Your task to perform on an android device: Open Chrome and go to settings Image 0: 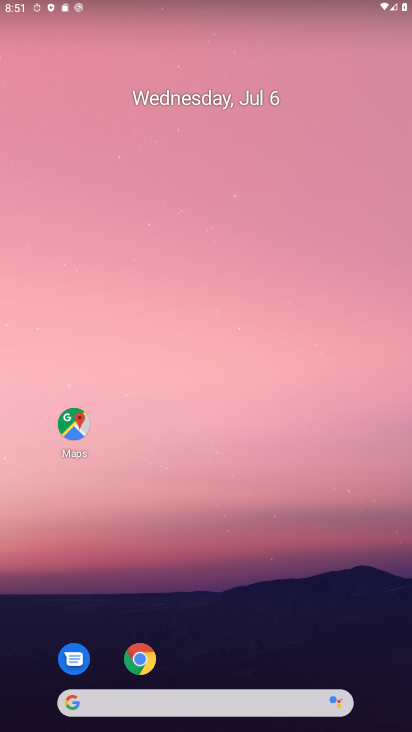
Step 0: drag from (349, 648) to (335, 151)
Your task to perform on an android device: Open Chrome and go to settings Image 1: 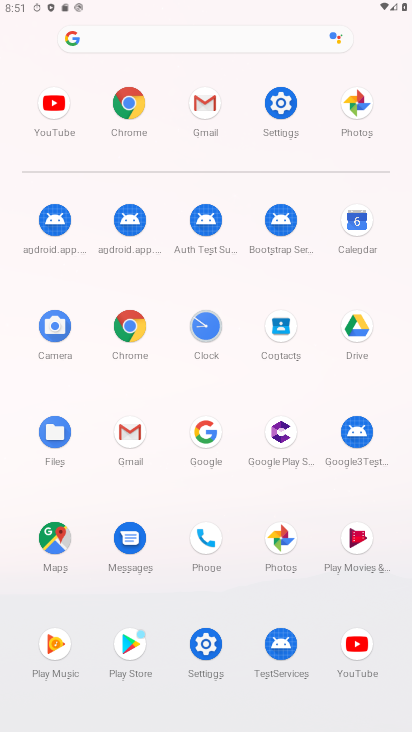
Step 1: click (136, 327)
Your task to perform on an android device: Open Chrome and go to settings Image 2: 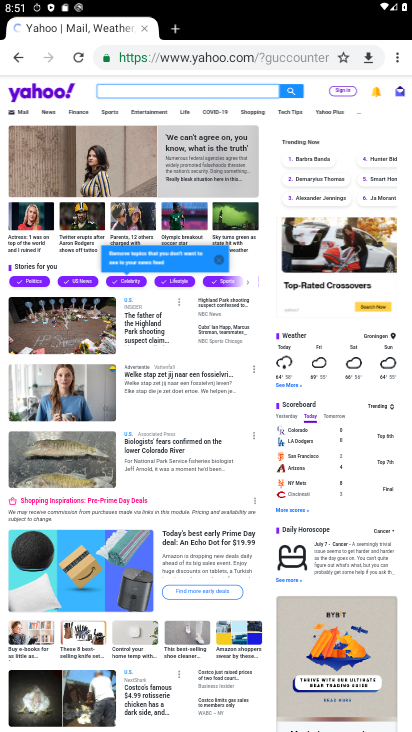
Step 2: click (394, 60)
Your task to perform on an android device: Open Chrome and go to settings Image 3: 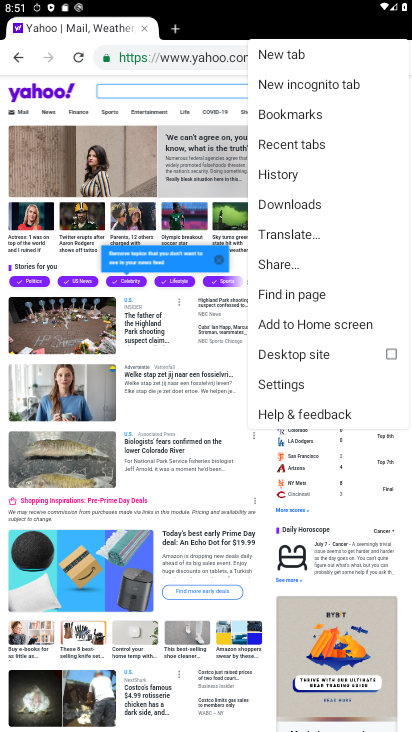
Step 3: click (321, 380)
Your task to perform on an android device: Open Chrome and go to settings Image 4: 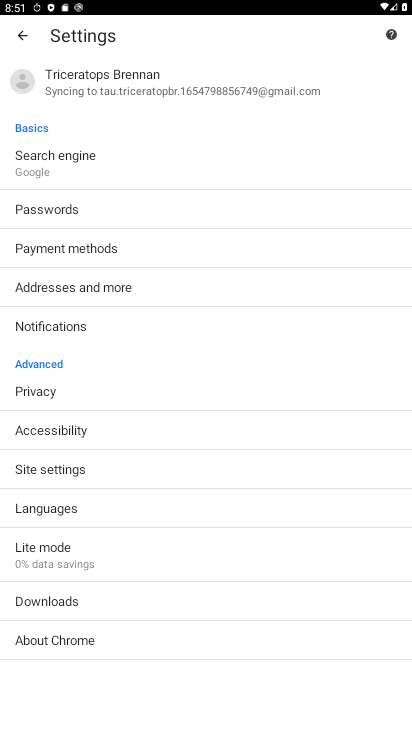
Step 4: task complete